Your task to perform on an android device: Is it going to rain tomorrow? Image 0: 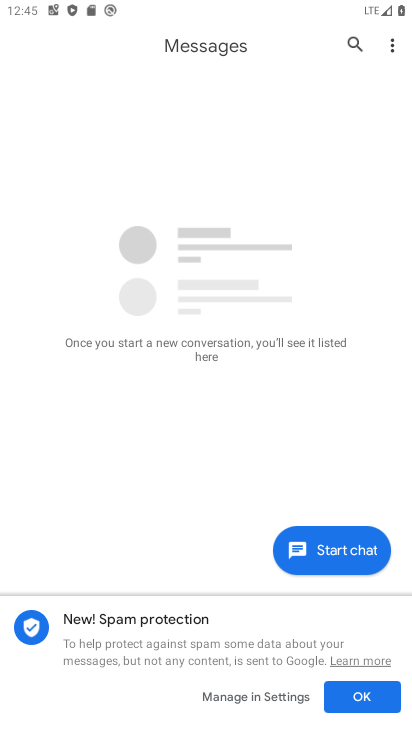
Step 0: press home button
Your task to perform on an android device: Is it going to rain tomorrow? Image 1: 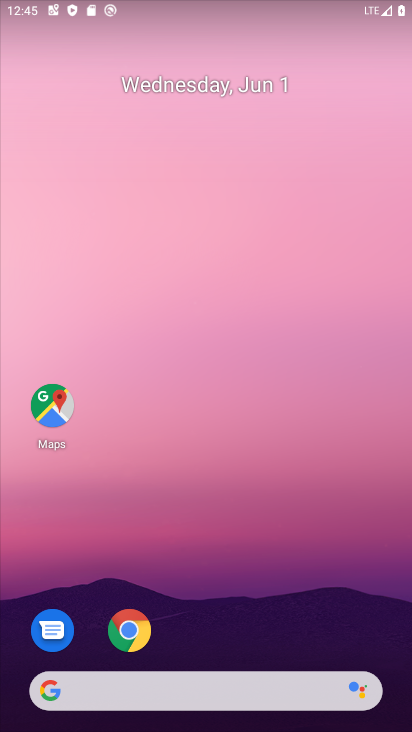
Step 1: click (85, 685)
Your task to perform on an android device: Is it going to rain tomorrow? Image 2: 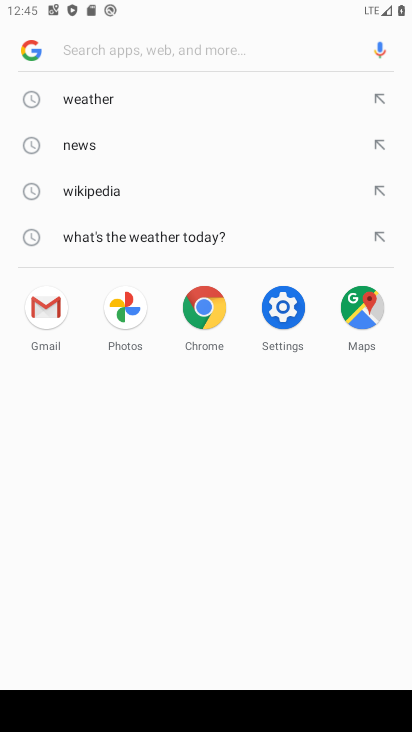
Step 2: type "Is it going to rain tomorrow"
Your task to perform on an android device: Is it going to rain tomorrow? Image 3: 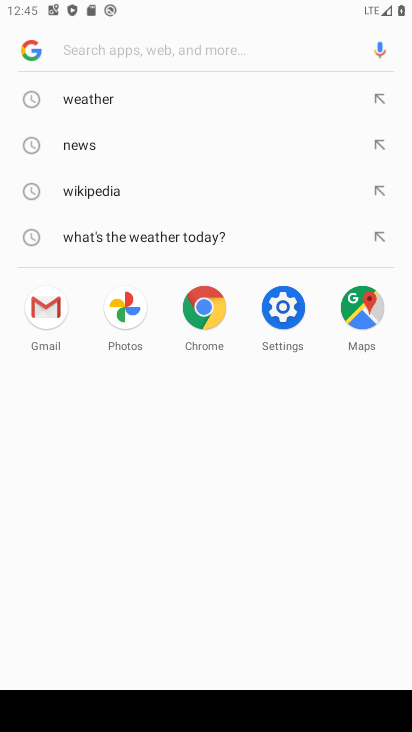
Step 3: click (203, 41)
Your task to perform on an android device: Is it going to rain tomorrow? Image 4: 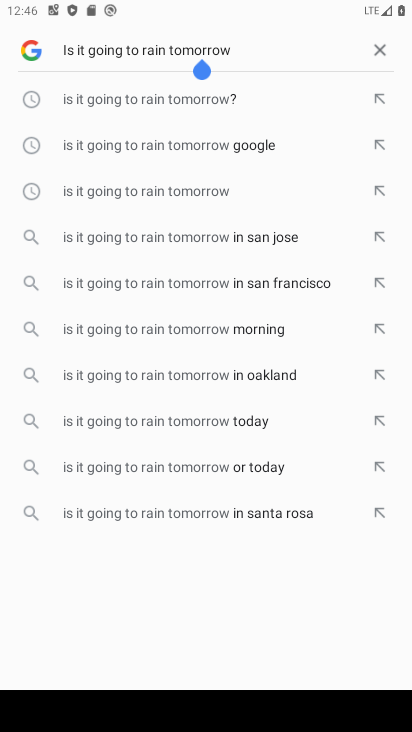
Step 4: click (152, 105)
Your task to perform on an android device: Is it going to rain tomorrow? Image 5: 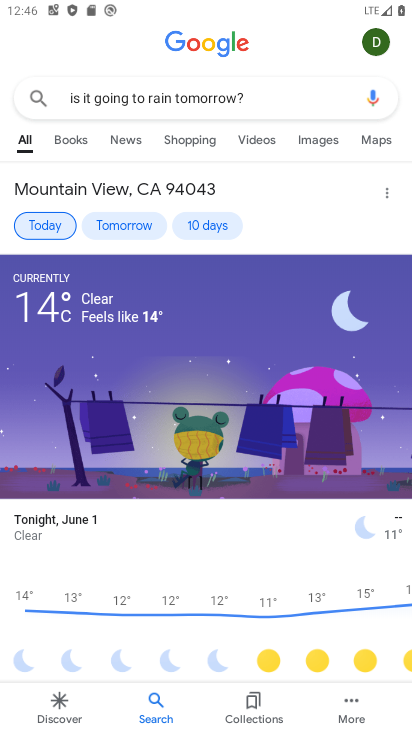
Step 5: task complete